Your task to perform on an android device: turn pop-ups on in chrome Image 0: 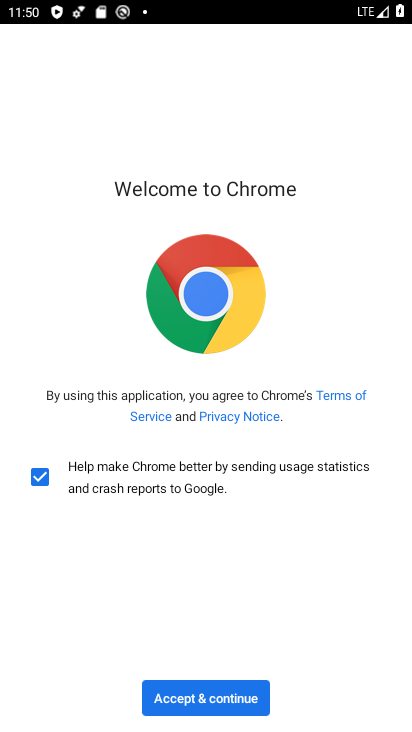
Step 0: click (228, 712)
Your task to perform on an android device: turn pop-ups on in chrome Image 1: 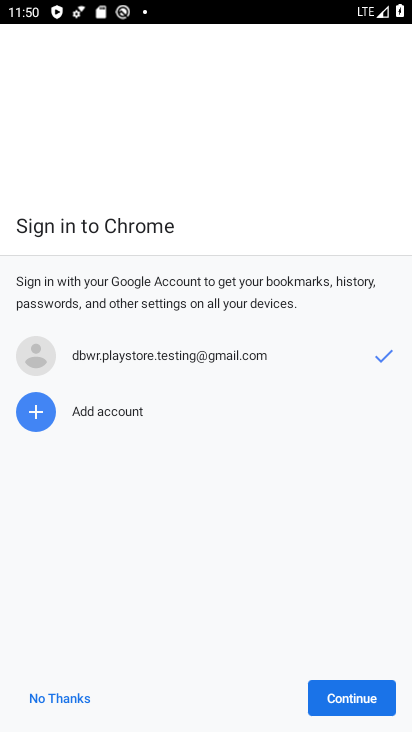
Step 1: click (327, 698)
Your task to perform on an android device: turn pop-ups on in chrome Image 2: 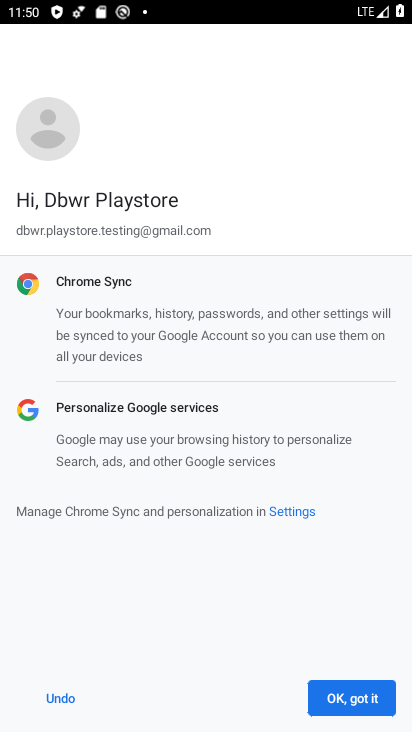
Step 2: click (339, 700)
Your task to perform on an android device: turn pop-ups on in chrome Image 3: 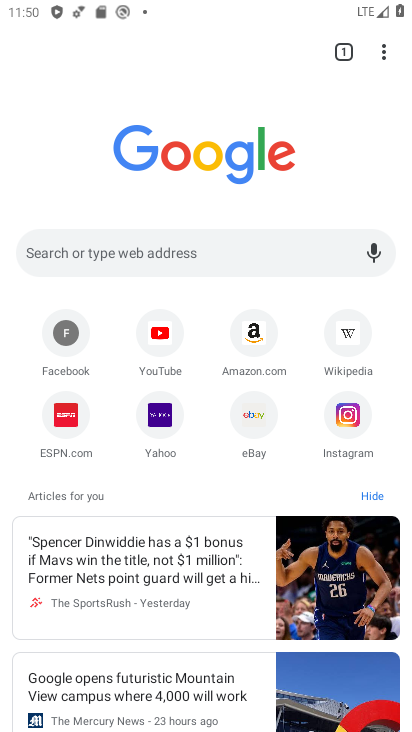
Step 3: click (379, 54)
Your task to perform on an android device: turn pop-ups on in chrome Image 4: 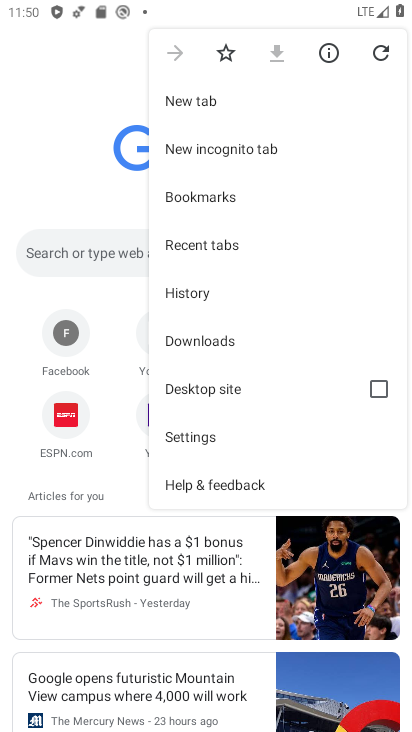
Step 4: click (201, 438)
Your task to perform on an android device: turn pop-ups on in chrome Image 5: 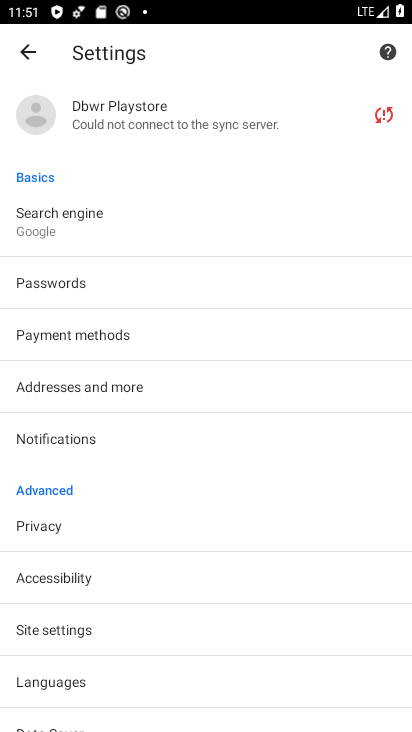
Step 5: click (118, 626)
Your task to perform on an android device: turn pop-ups on in chrome Image 6: 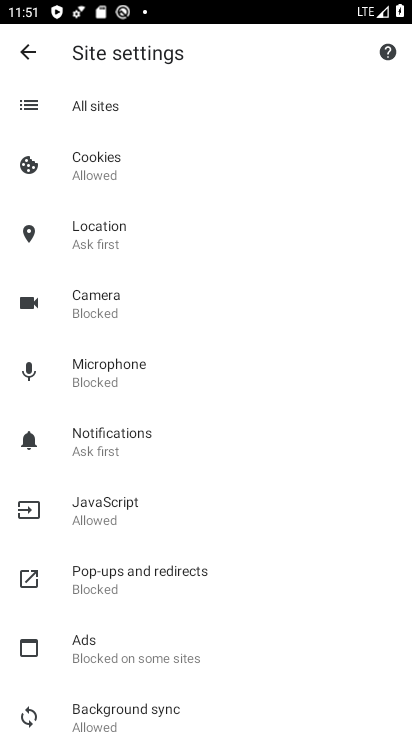
Step 6: click (146, 582)
Your task to perform on an android device: turn pop-ups on in chrome Image 7: 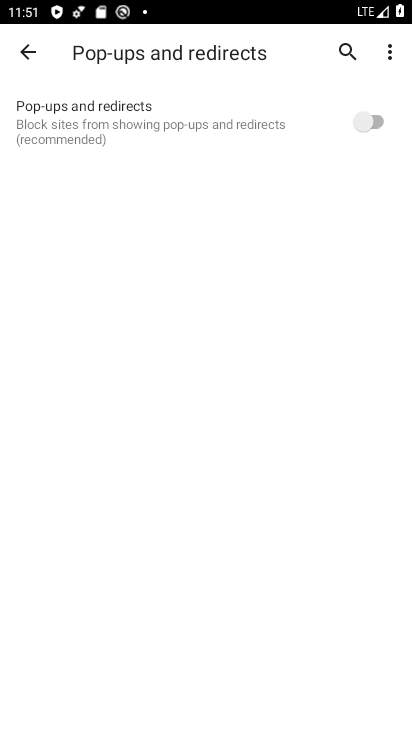
Step 7: click (374, 143)
Your task to perform on an android device: turn pop-ups on in chrome Image 8: 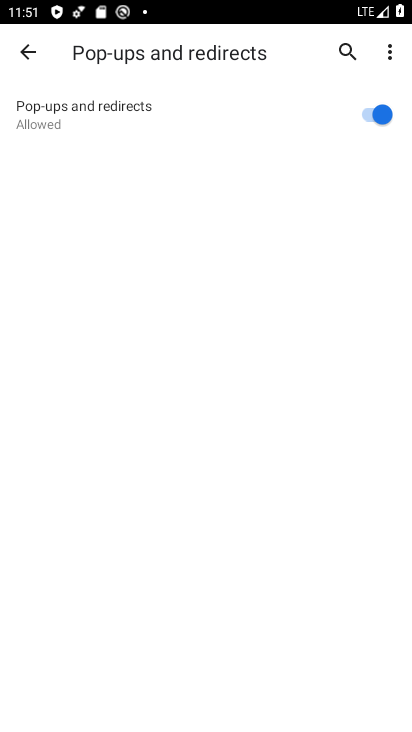
Step 8: task complete